Your task to perform on an android device: read, delete, or share a saved page in the chrome app Image 0: 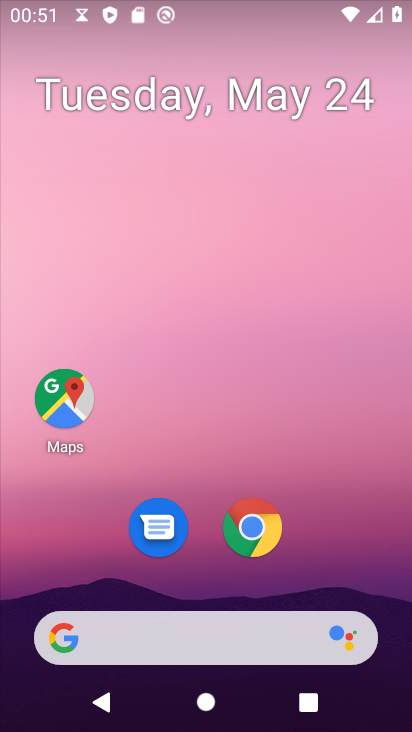
Step 0: press home button
Your task to perform on an android device: read, delete, or share a saved page in the chrome app Image 1: 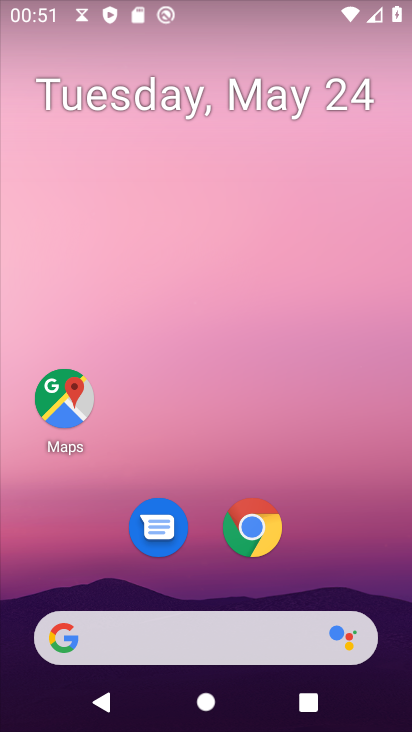
Step 1: click (239, 545)
Your task to perform on an android device: read, delete, or share a saved page in the chrome app Image 2: 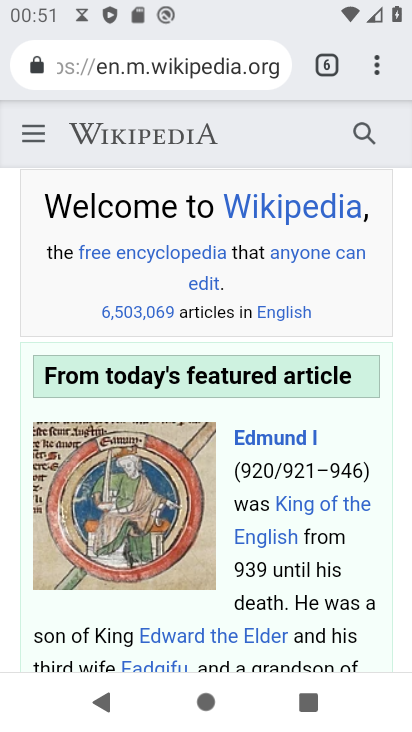
Step 2: drag from (369, 68) to (180, 420)
Your task to perform on an android device: read, delete, or share a saved page in the chrome app Image 3: 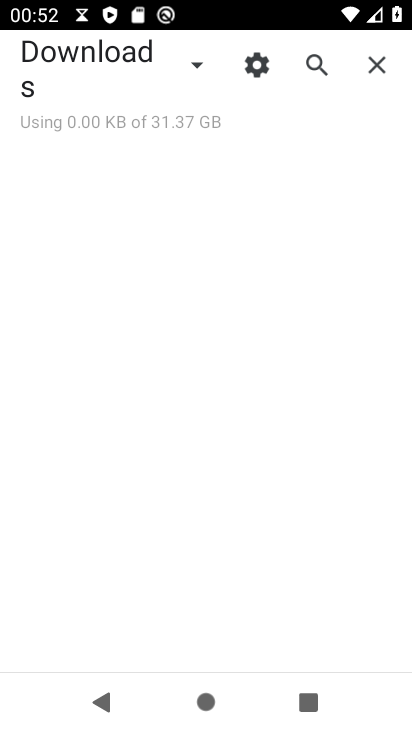
Step 3: click (188, 68)
Your task to perform on an android device: read, delete, or share a saved page in the chrome app Image 4: 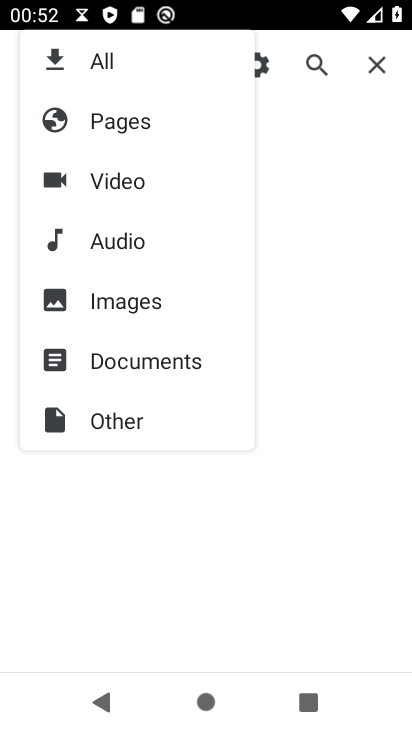
Step 4: click (142, 122)
Your task to perform on an android device: read, delete, or share a saved page in the chrome app Image 5: 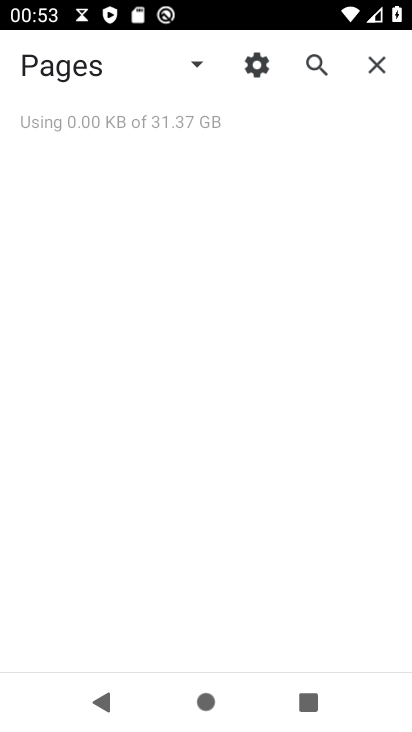
Step 5: task complete